Your task to perform on an android device: Open Yahoo.com Image 0: 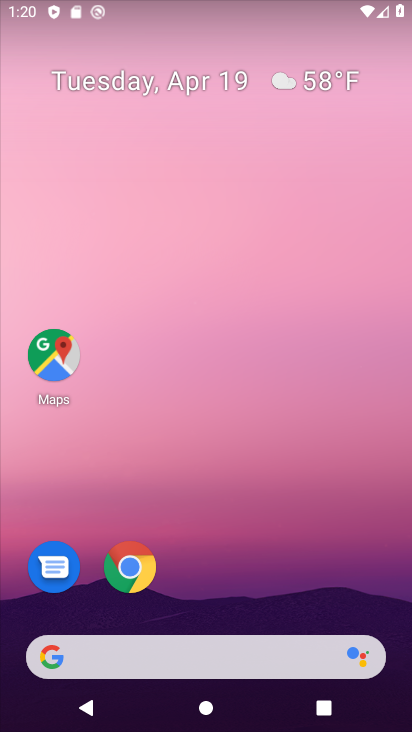
Step 0: click (130, 563)
Your task to perform on an android device: Open Yahoo.com Image 1: 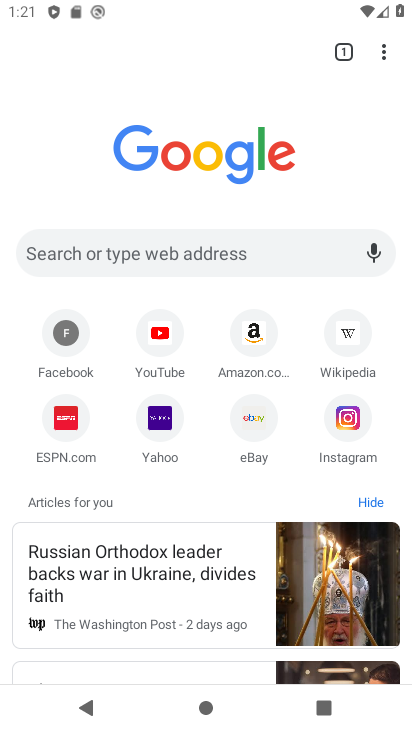
Step 1: click (191, 263)
Your task to perform on an android device: Open Yahoo.com Image 2: 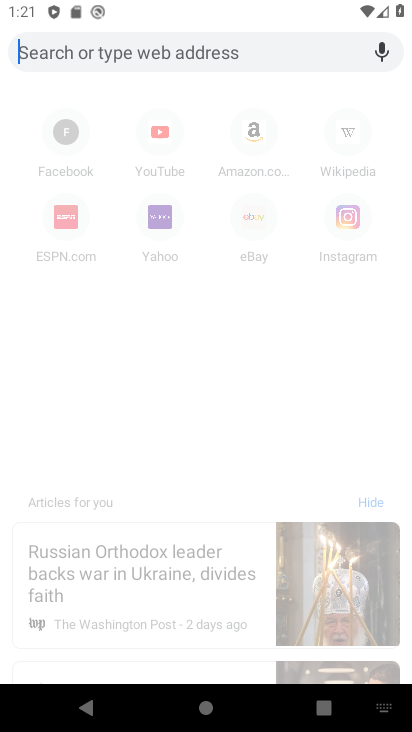
Step 2: type "yahoo.com"
Your task to perform on an android device: Open Yahoo.com Image 3: 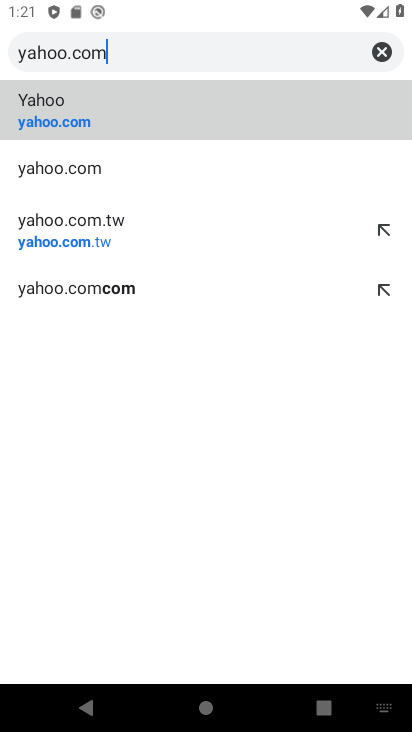
Step 3: click (49, 104)
Your task to perform on an android device: Open Yahoo.com Image 4: 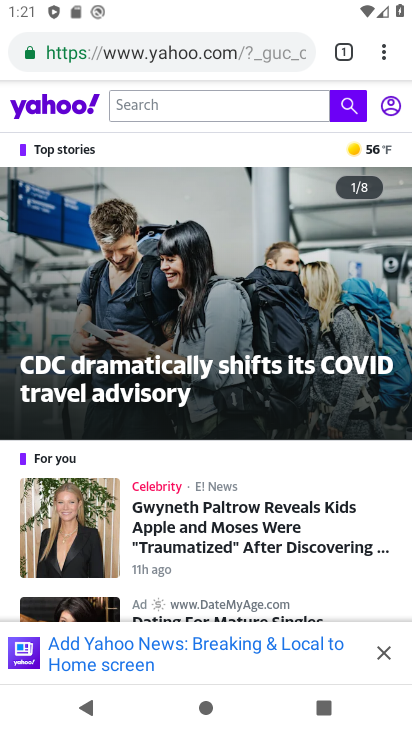
Step 4: task complete